Your task to perform on an android device: Search for vegetarian restaurants on Maps Image 0: 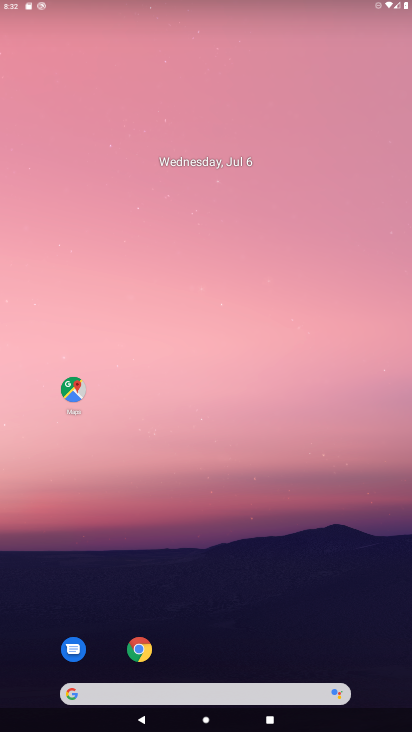
Step 0: drag from (358, 645) to (226, 129)
Your task to perform on an android device: Search for vegetarian restaurants on Maps Image 1: 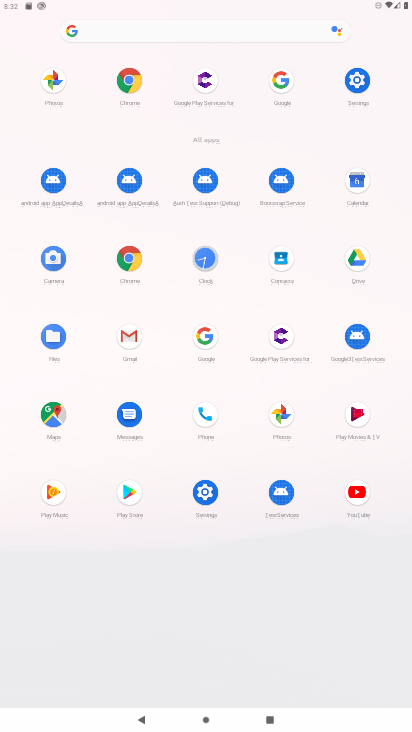
Step 1: click (56, 412)
Your task to perform on an android device: Search for vegetarian restaurants on Maps Image 2: 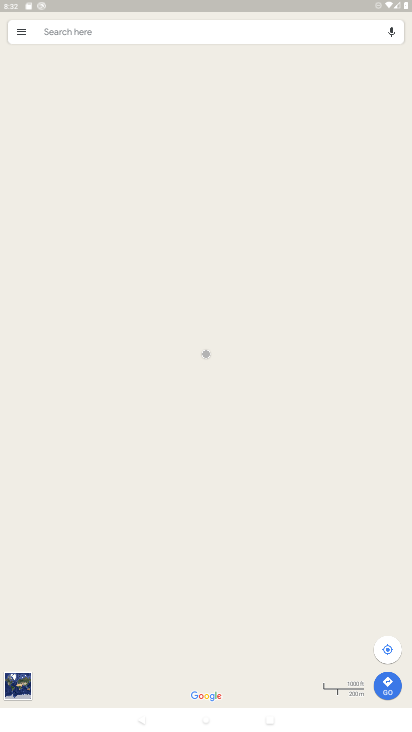
Step 2: click (99, 31)
Your task to perform on an android device: Search for vegetarian restaurants on Maps Image 3: 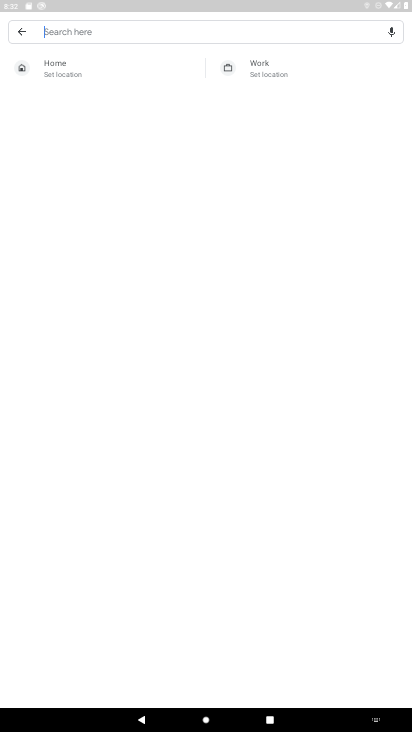
Step 3: type "vegetarian resturants"
Your task to perform on an android device: Search for vegetarian restaurants on Maps Image 4: 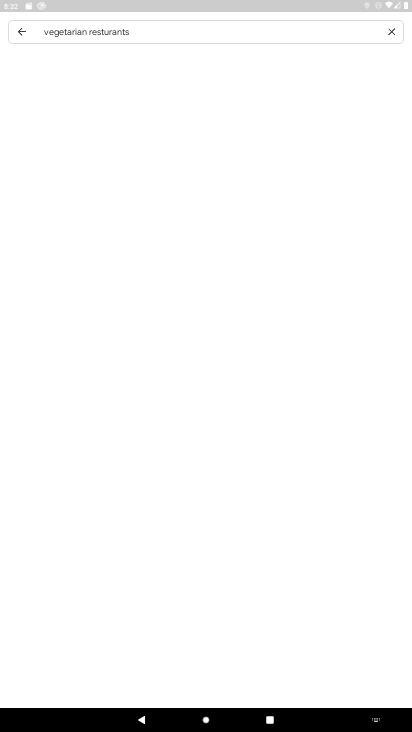
Step 4: click (19, 32)
Your task to perform on an android device: Search for vegetarian restaurants on Maps Image 5: 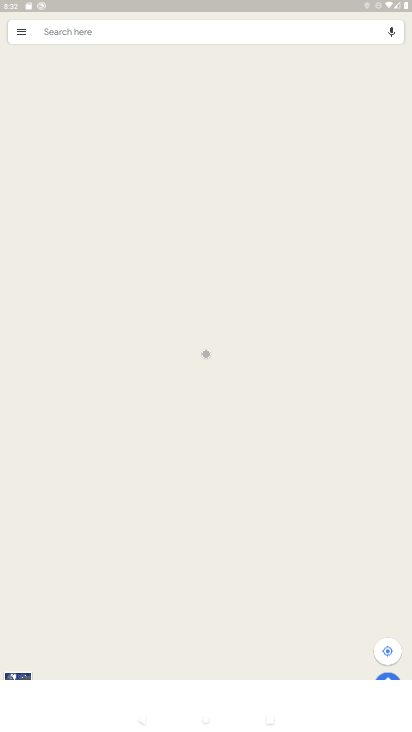
Step 5: click (18, 29)
Your task to perform on an android device: Search for vegetarian restaurants on Maps Image 6: 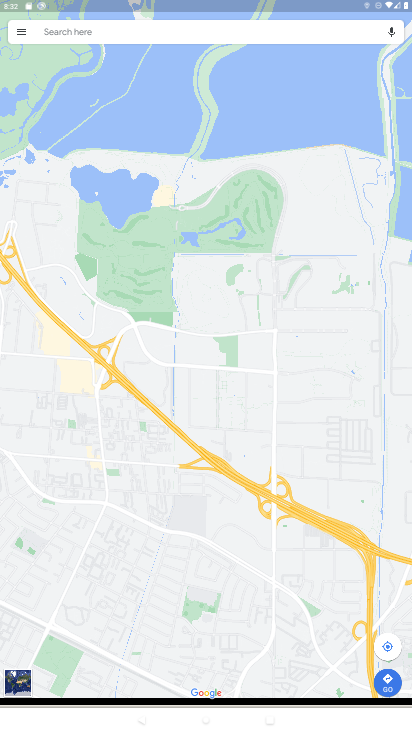
Step 6: click (107, 35)
Your task to perform on an android device: Search for vegetarian restaurants on Maps Image 7: 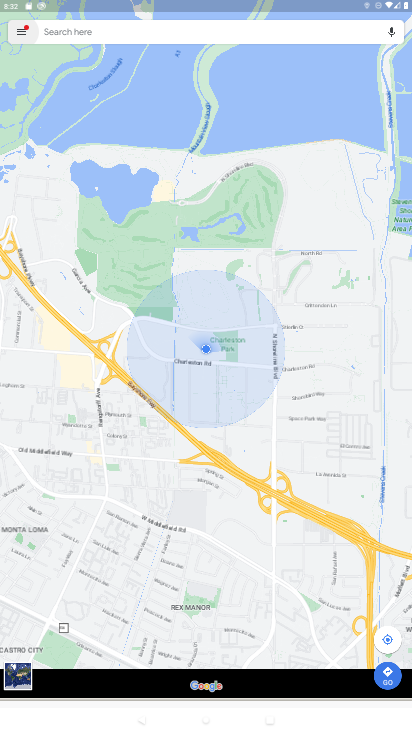
Step 7: click (48, 34)
Your task to perform on an android device: Search for vegetarian restaurants on Maps Image 8: 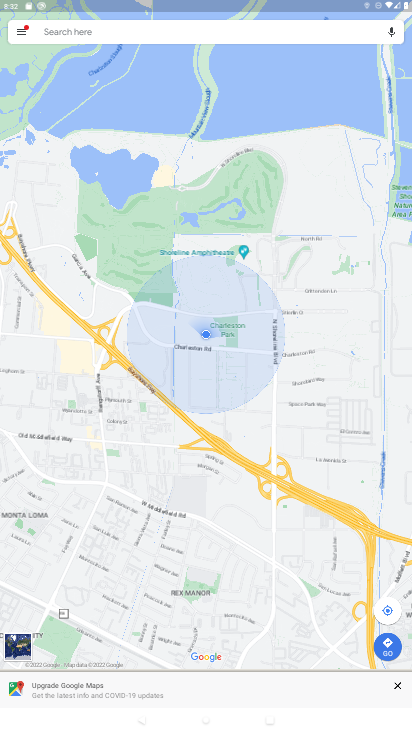
Step 8: click (48, 34)
Your task to perform on an android device: Search for vegetarian restaurants on Maps Image 9: 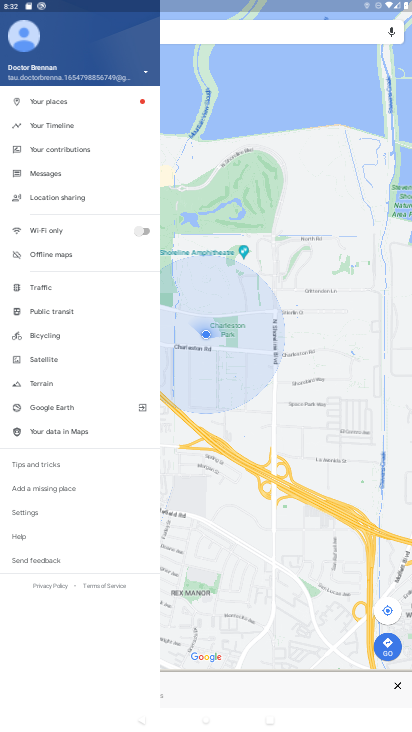
Step 9: click (57, 43)
Your task to perform on an android device: Search for vegetarian restaurants on Maps Image 10: 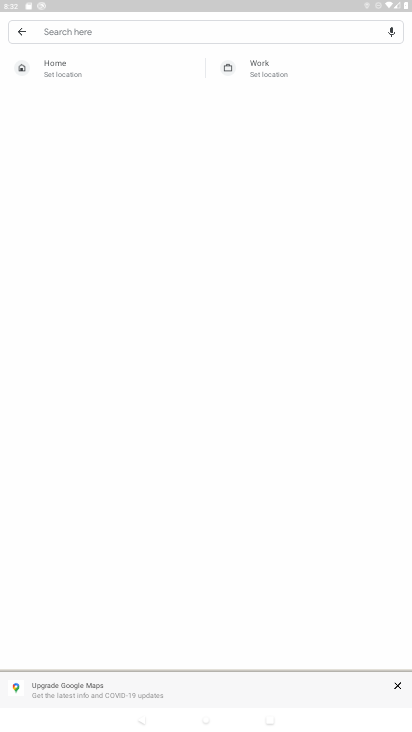
Step 10: click (55, 39)
Your task to perform on an android device: Search for vegetarian restaurants on Maps Image 11: 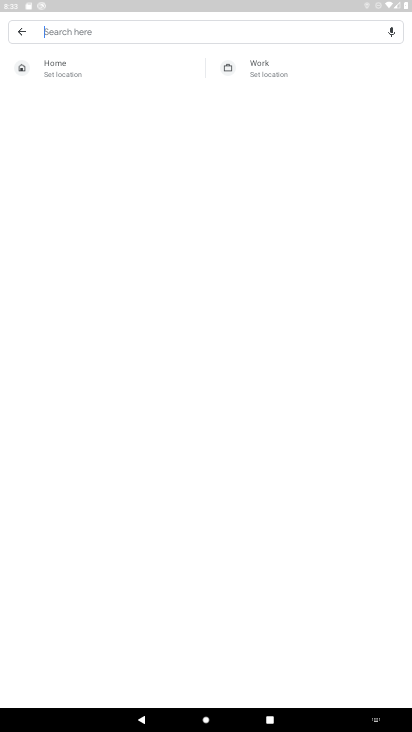
Step 11: type "vegetarian restaurants"
Your task to perform on an android device: Search for vegetarian restaurants on Maps Image 12: 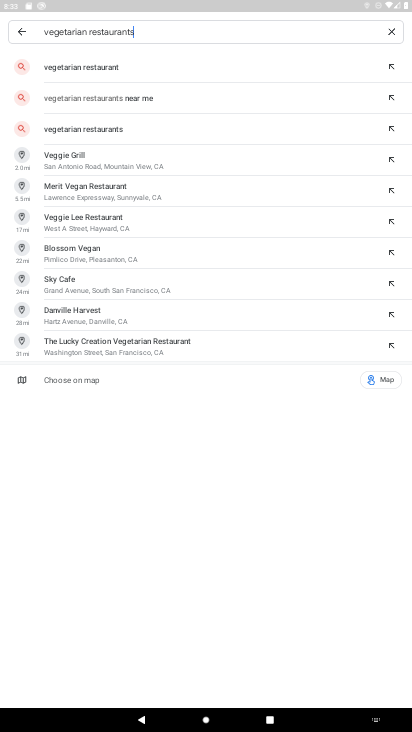
Step 12: click (124, 60)
Your task to perform on an android device: Search for vegetarian restaurants on Maps Image 13: 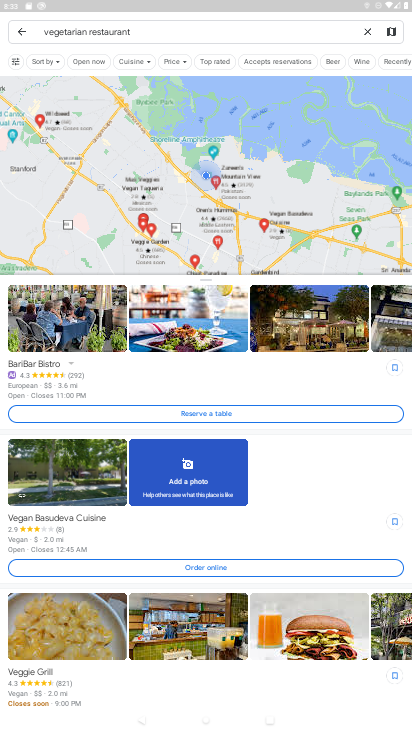
Step 13: press back button
Your task to perform on an android device: Search for vegetarian restaurants on Maps Image 14: 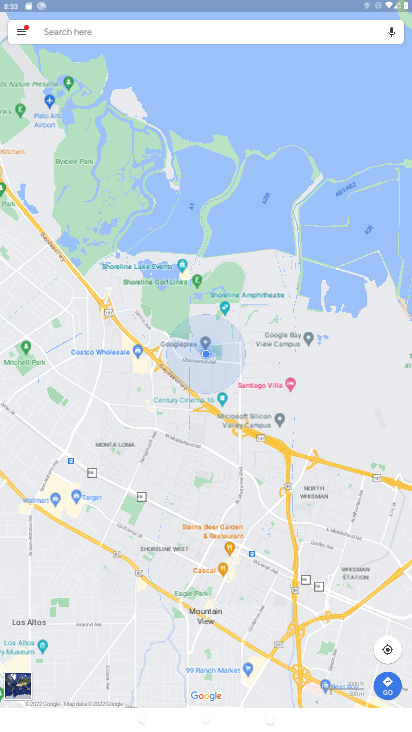
Step 14: press home button
Your task to perform on an android device: Search for vegetarian restaurants on Maps Image 15: 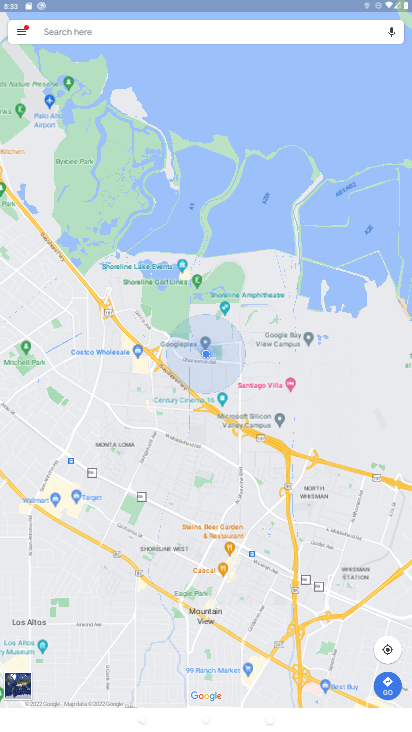
Step 15: press home button
Your task to perform on an android device: Search for vegetarian restaurants on Maps Image 16: 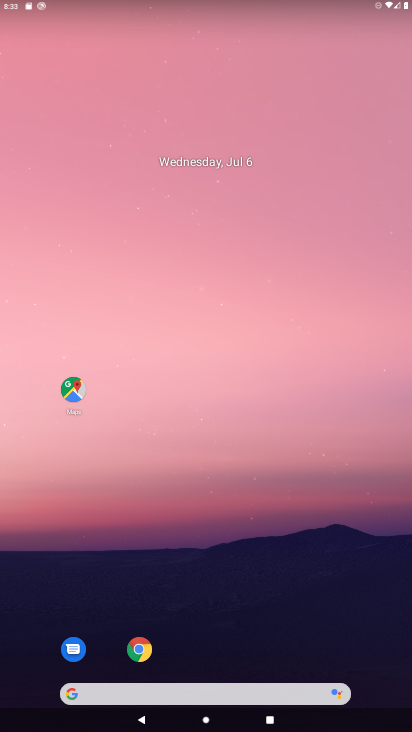
Step 16: drag from (239, 716) to (188, 116)
Your task to perform on an android device: Search for vegetarian restaurants on Maps Image 17: 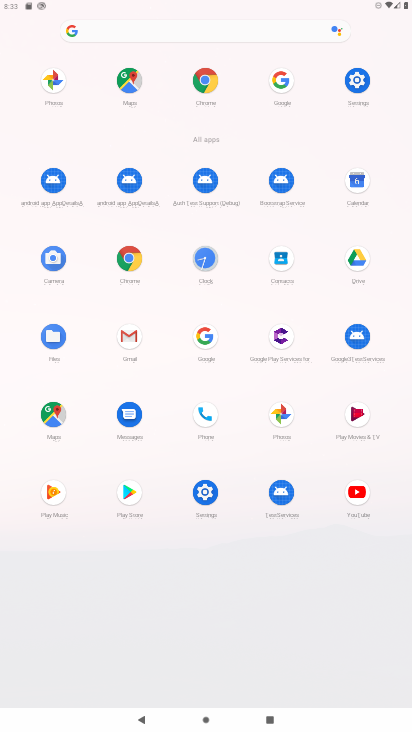
Step 17: click (47, 416)
Your task to perform on an android device: Search for vegetarian restaurants on Maps Image 18: 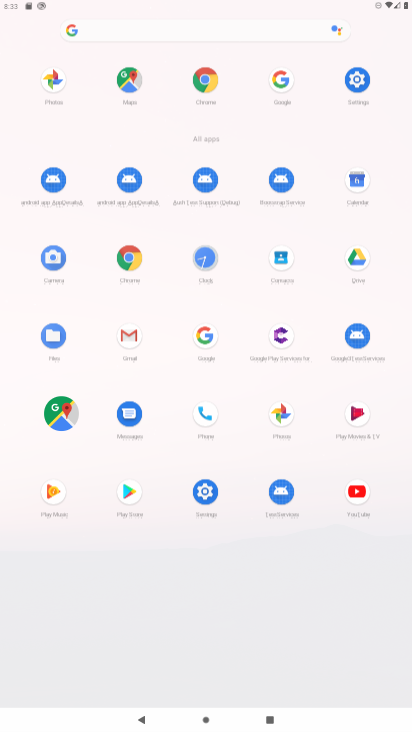
Step 18: click (48, 411)
Your task to perform on an android device: Search for vegetarian restaurants on Maps Image 19: 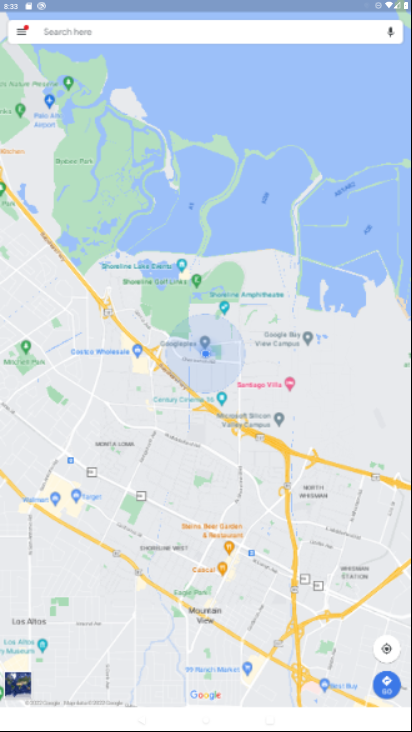
Step 19: click (50, 411)
Your task to perform on an android device: Search for vegetarian restaurants on Maps Image 20: 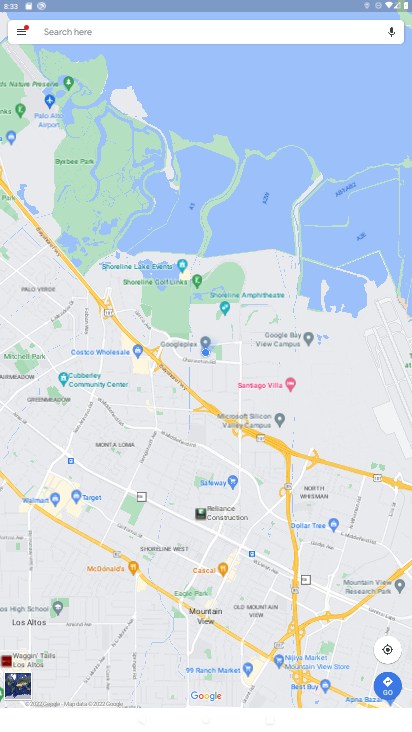
Step 20: type "vegetarian restaurants"
Your task to perform on an android device: Search for vegetarian restaurants on Maps Image 21: 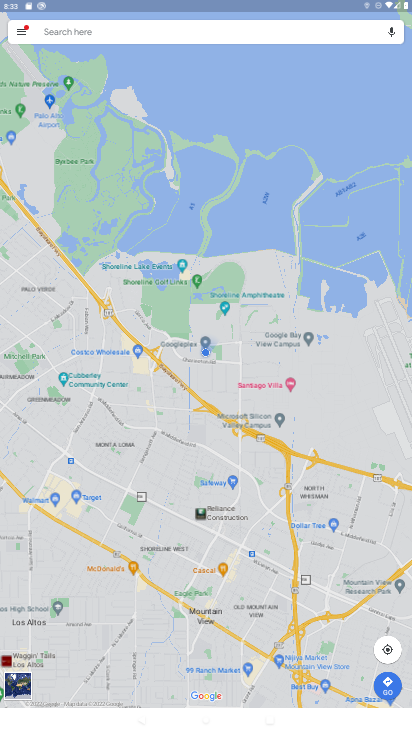
Step 21: click (91, 32)
Your task to perform on an android device: Search for vegetarian restaurants on Maps Image 22: 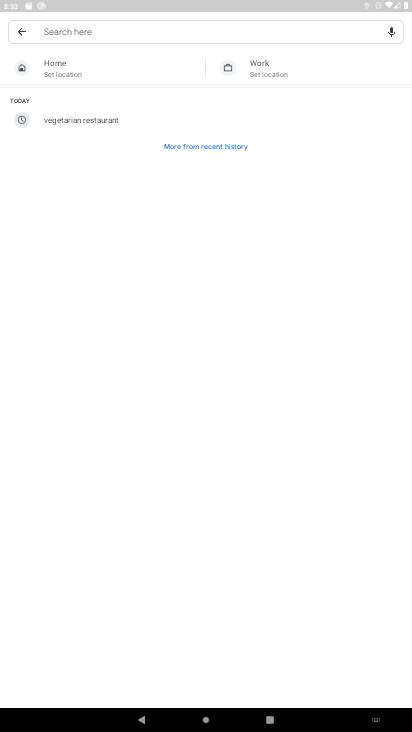
Step 22: click (96, 120)
Your task to perform on an android device: Search for vegetarian restaurants on Maps Image 23: 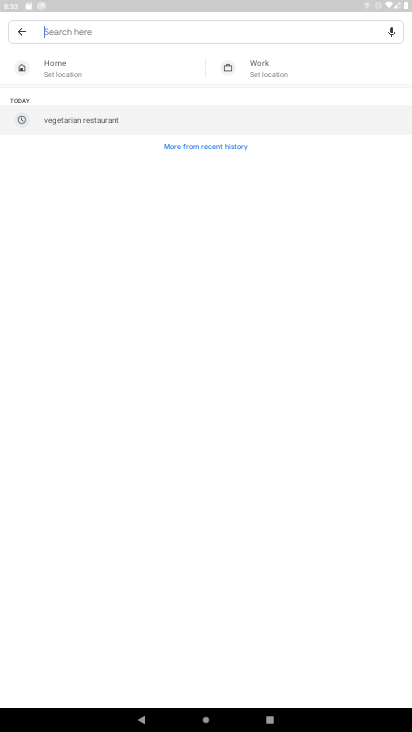
Step 23: click (96, 120)
Your task to perform on an android device: Search for vegetarian restaurants on Maps Image 24: 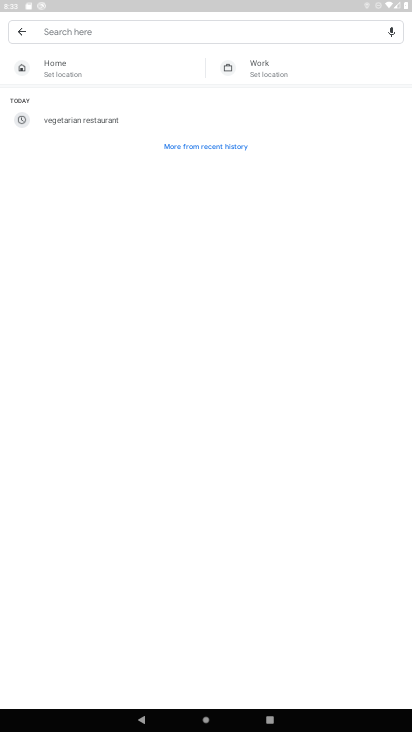
Step 24: click (102, 114)
Your task to perform on an android device: Search for vegetarian restaurants on Maps Image 25: 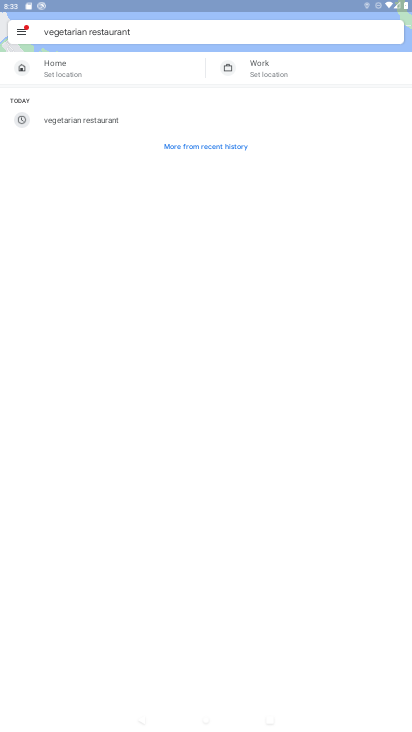
Step 25: click (102, 114)
Your task to perform on an android device: Search for vegetarian restaurants on Maps Image 26: 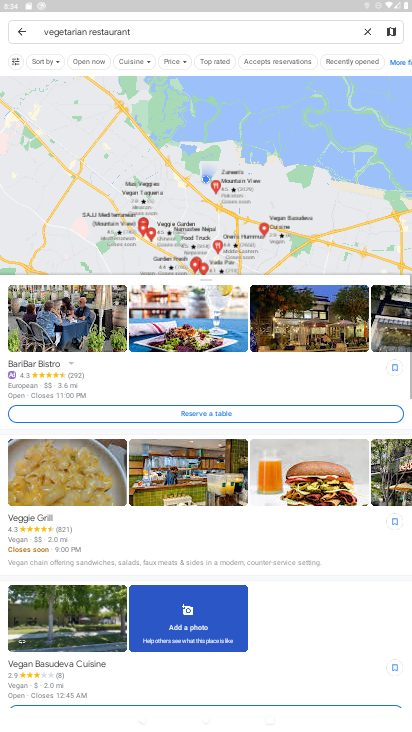
Step 26: task complete